Your task to perform on an android device: Is it going to rain today? Image 0: 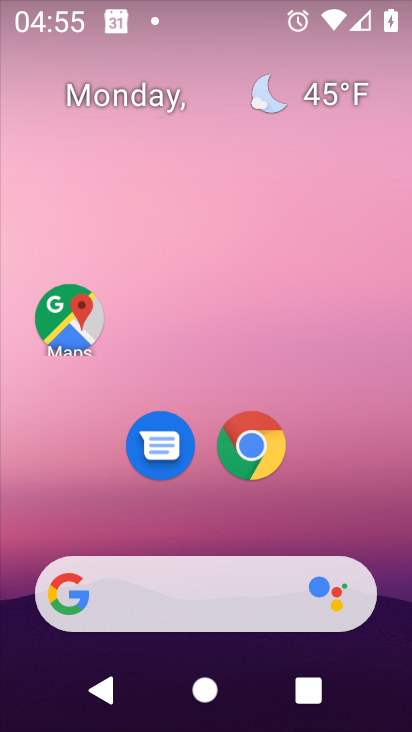
Step 0: click (195, 589)
Your task to perform on an android device: Is it going to rain today? Image 1: 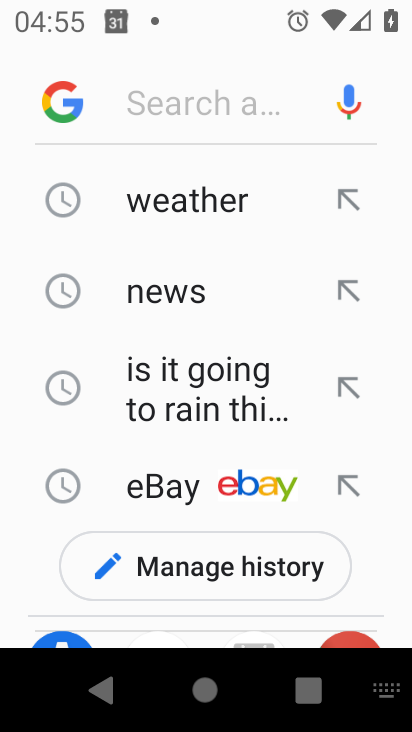
Step 1: type "is it going to rain today"
Your task to perform on an android device: Is it going to rain today? Image 2: 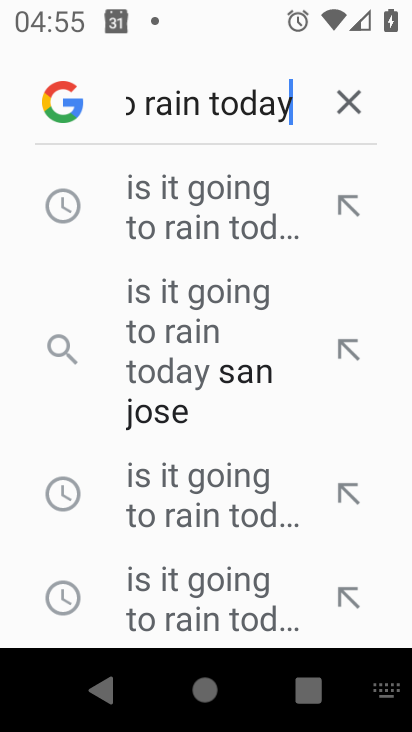
Step 2: click (203, 190)
Your task to perform on an android device: Is it going to rain today? Image 3: 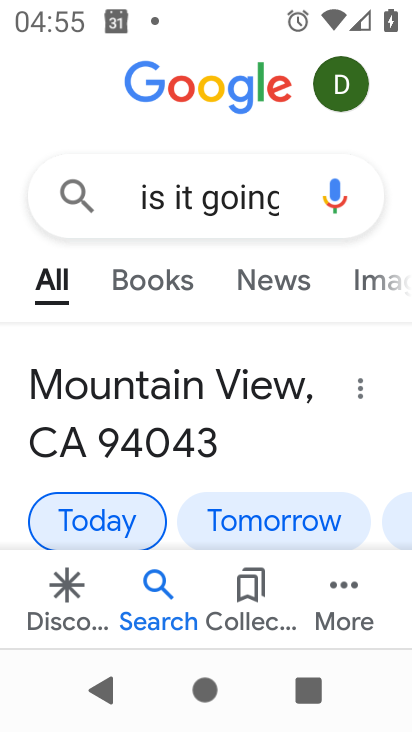
Step 3: task complete